Your task to perform on an android device: Toggle the flashlight Image 0: 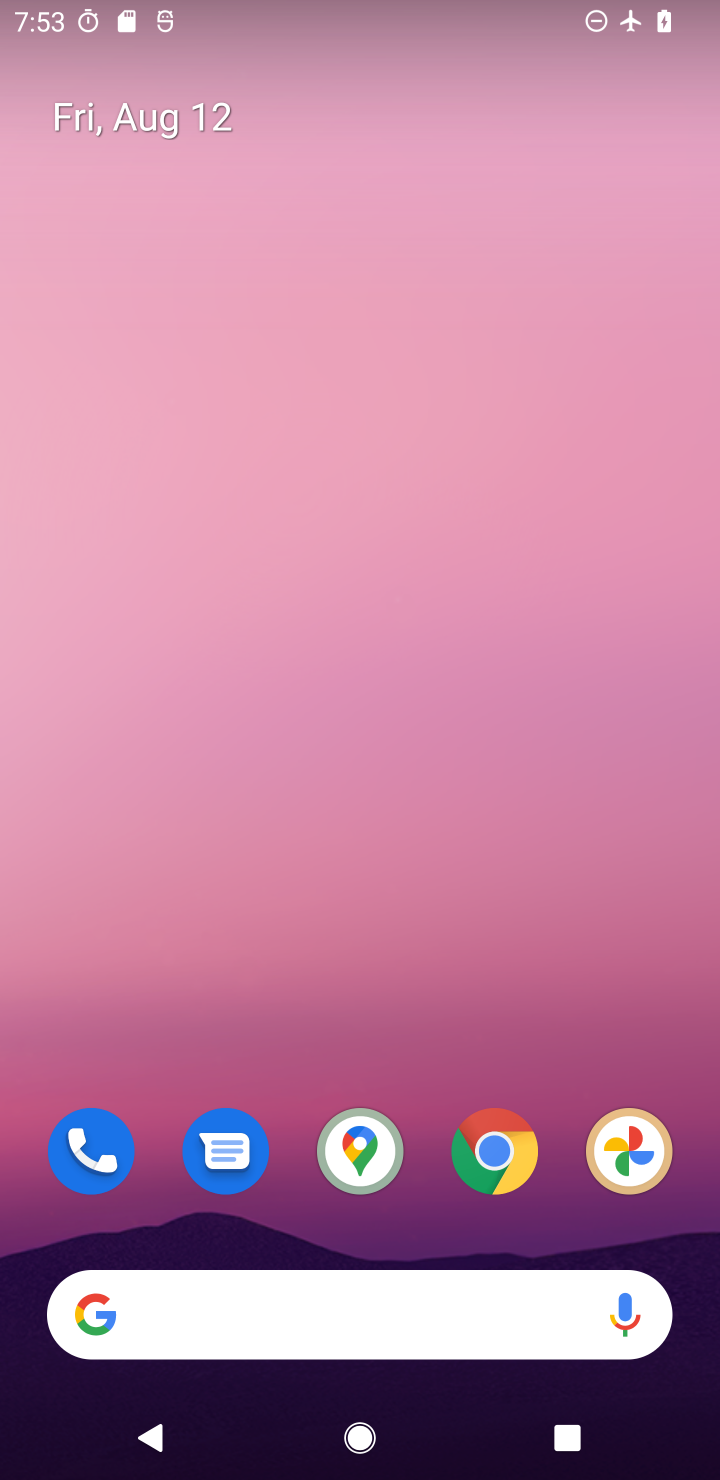
Step 0: drag from (420, 905) to (629, 5)
Your task to perform on an android device: Toggle the flashlight Image 1: 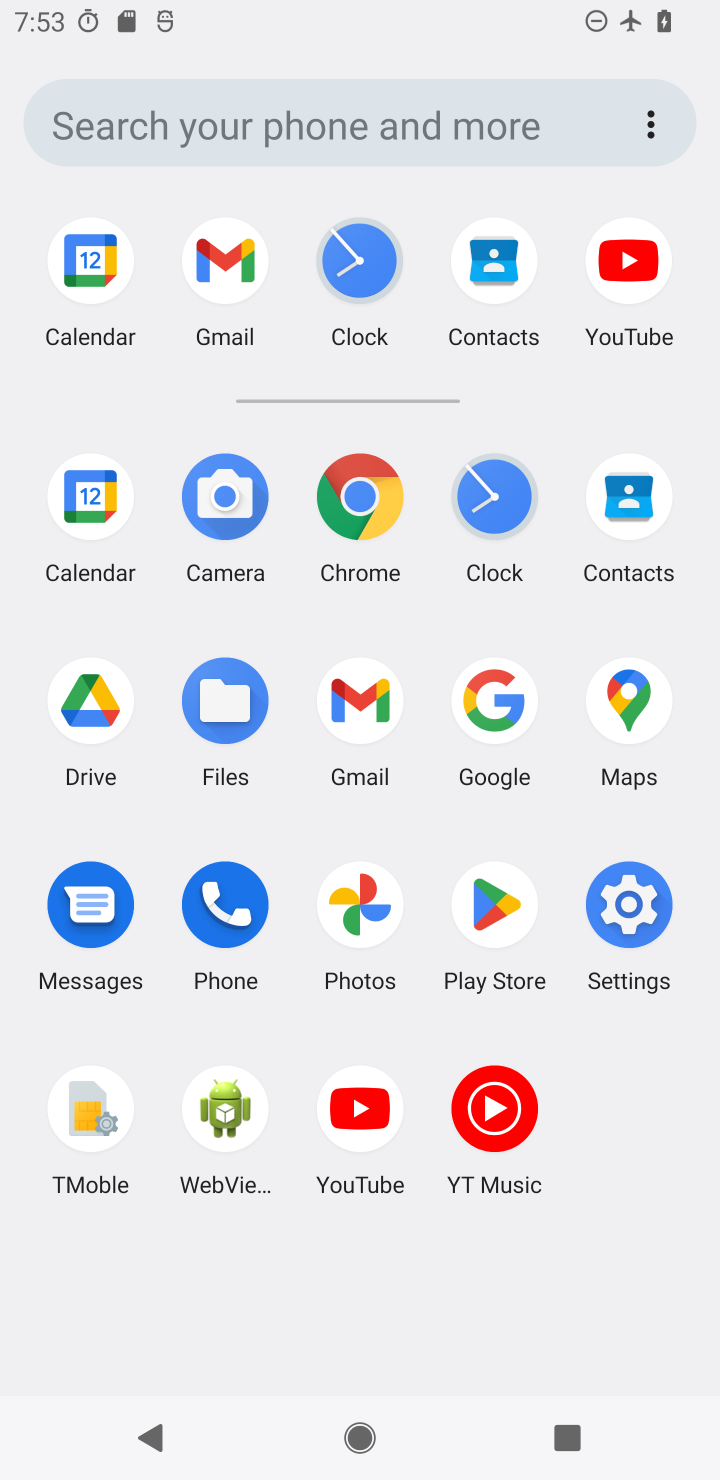
Step 1: click (643, 923)
Your task to perform on an android device: Toggle the flashlight Image 2: 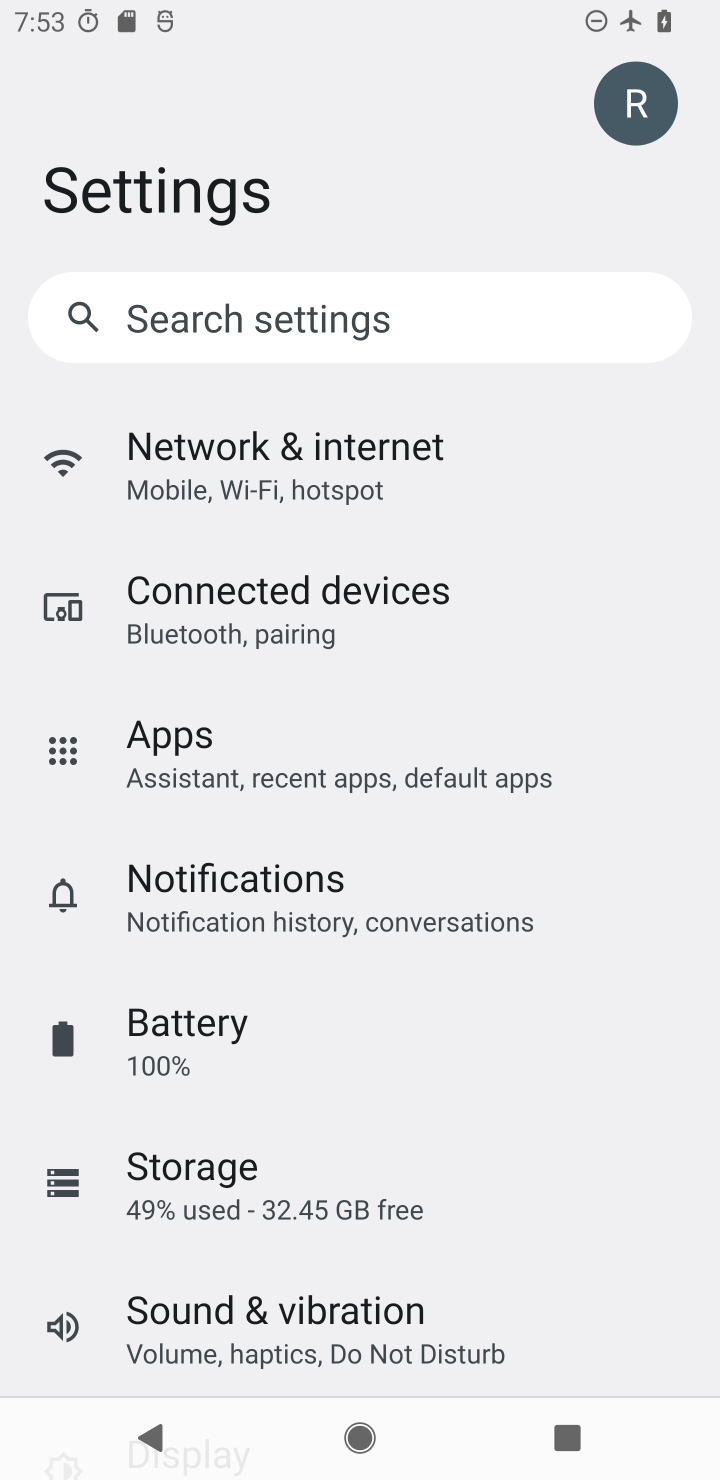
Step 2: drag from (394, 1122) to (439, 193)
Your task to perform on an android device: Toggle the flashlight Image 3: 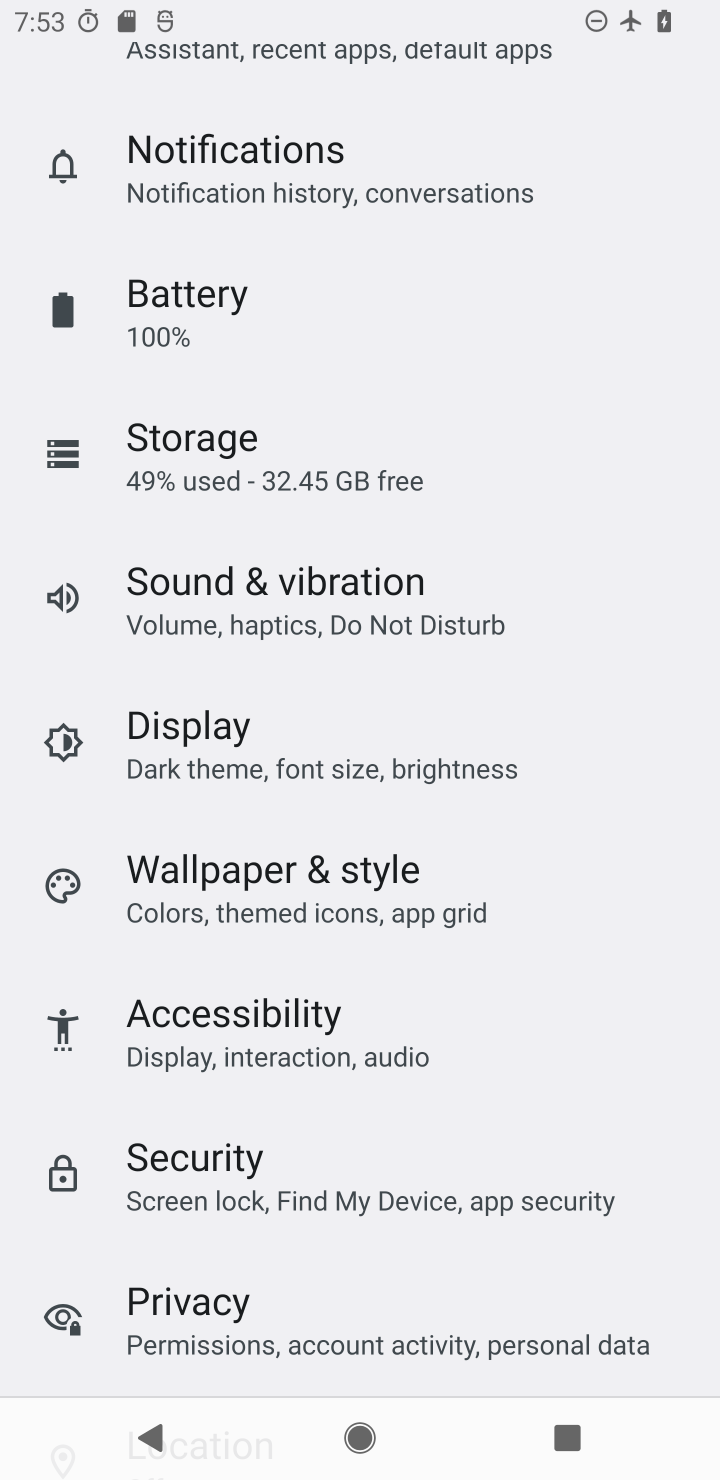
Step 3: click (231, 728)
Your task to perform on an android device: Toggle the flashlight Image 4: 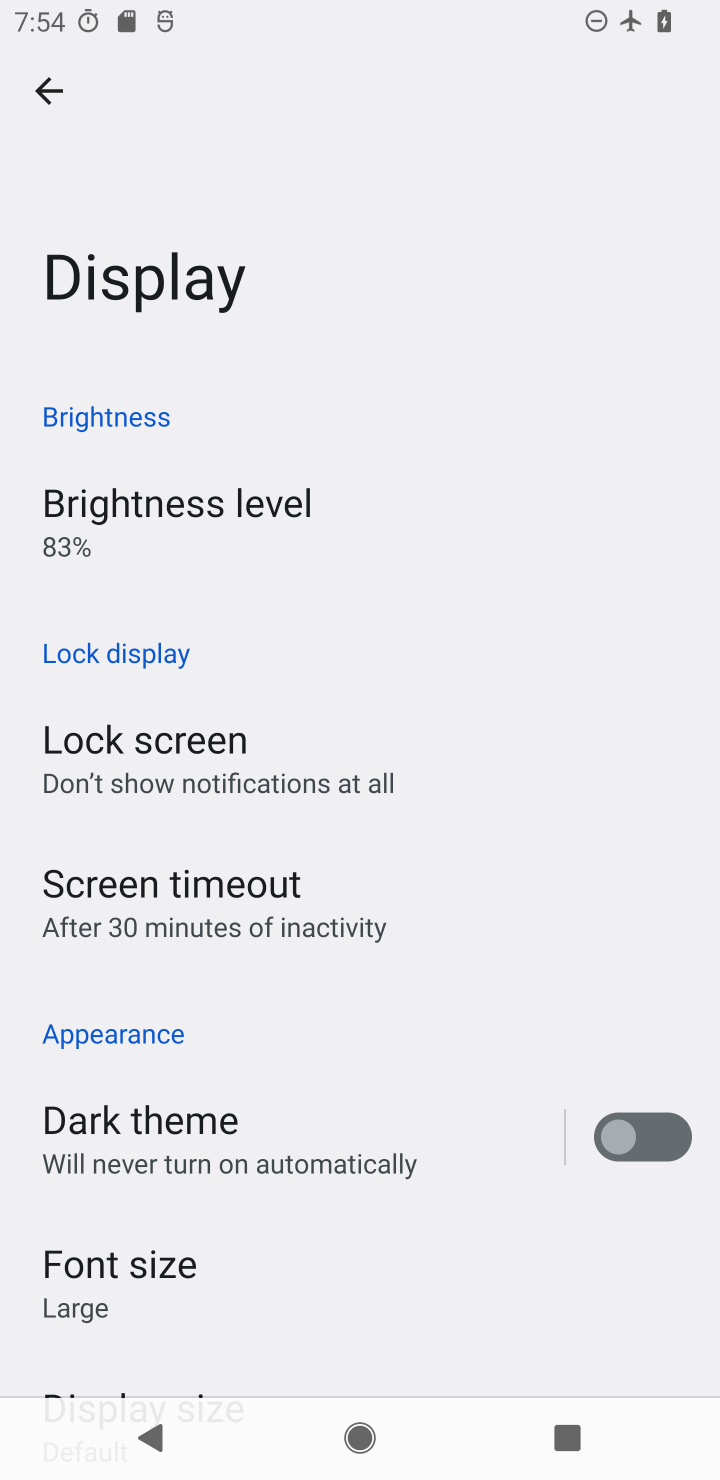
Step 4: drag from (231, 1165) to (336, 1366)
Your task to perform on an android device: Toggle the flashlight Image 5: 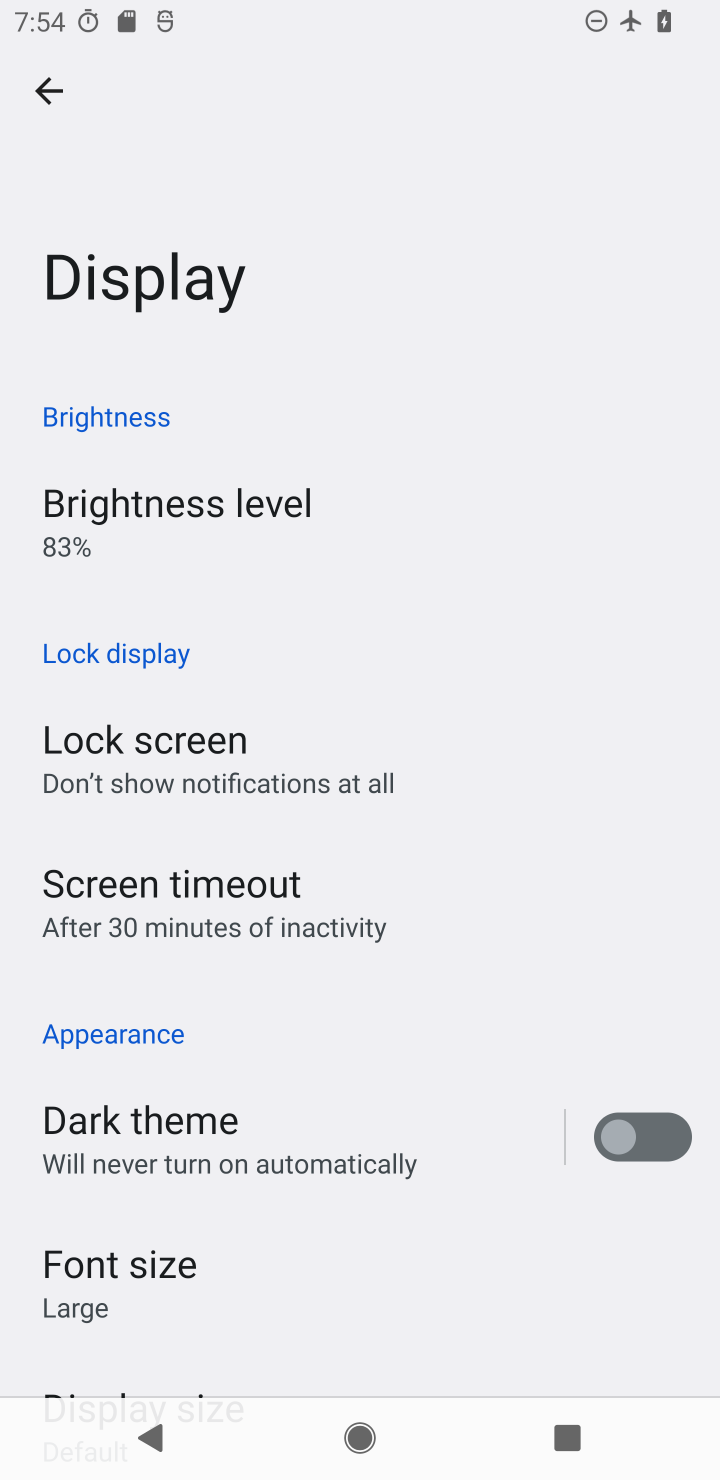
Step 5: click (225, 523)
Your task to perform on an android device: Toggle the flashlight Image 6: 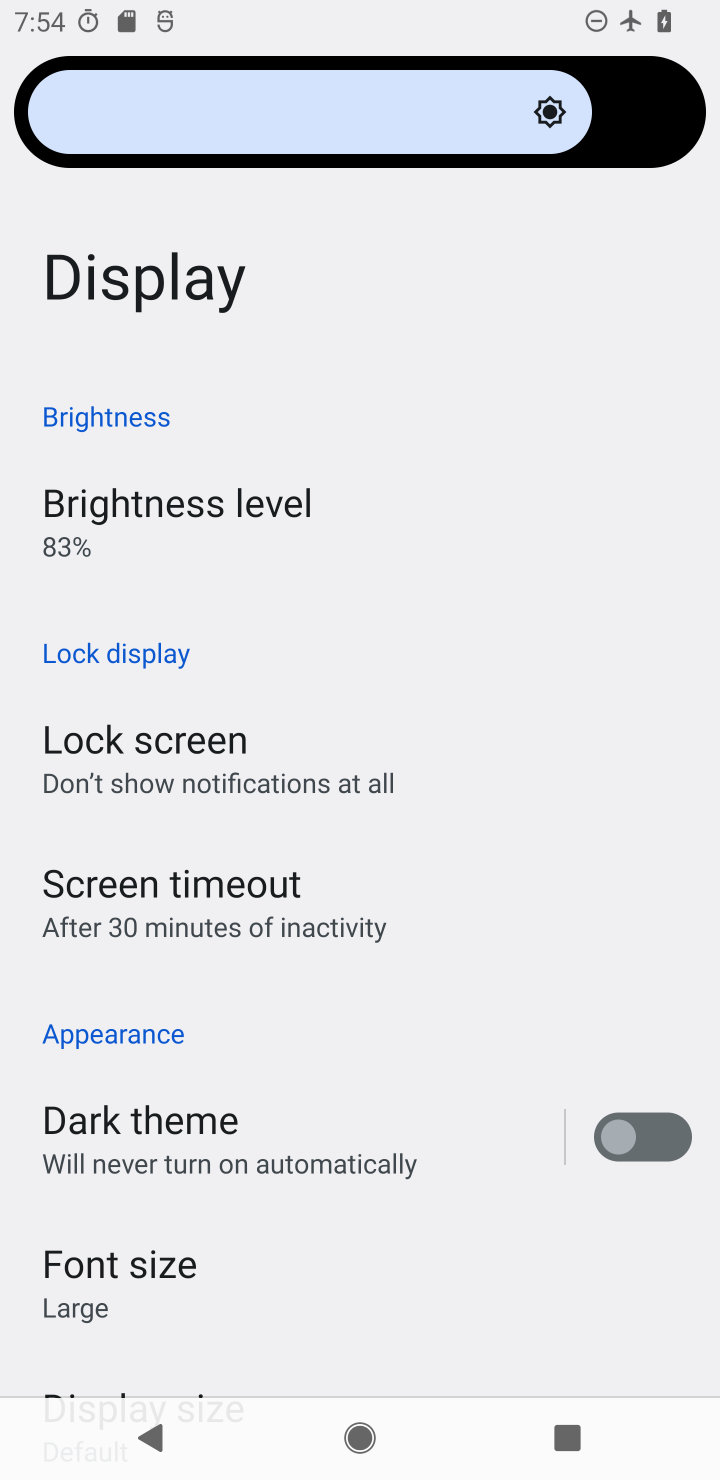
Step 6: task complete